Your task to perform on an android device: What's on my calendar today? Image 0: 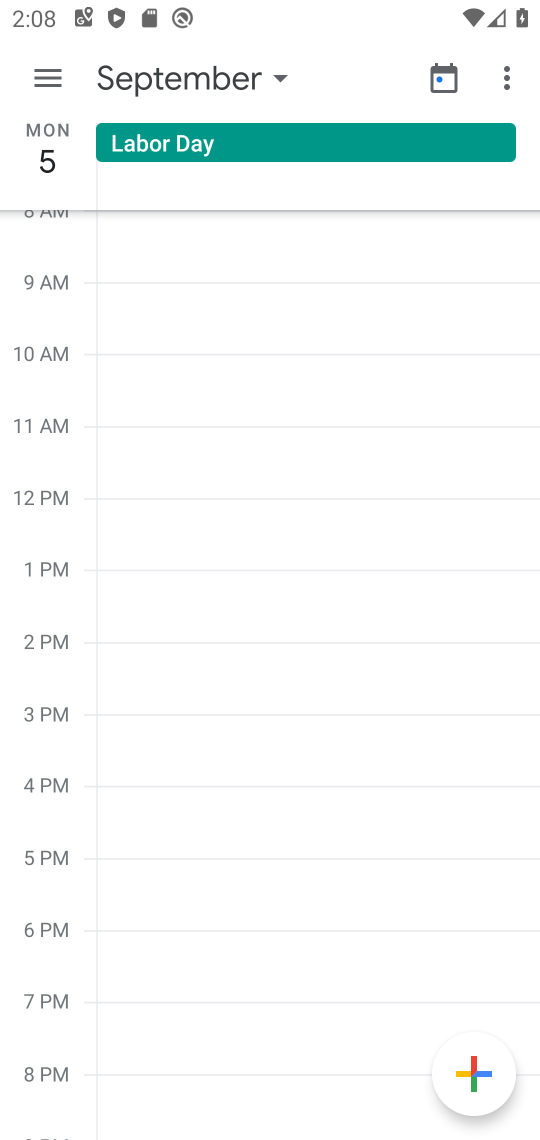
Step 0: press back button
Your task to perform on an android device: What's on my calendar today? Image 1: 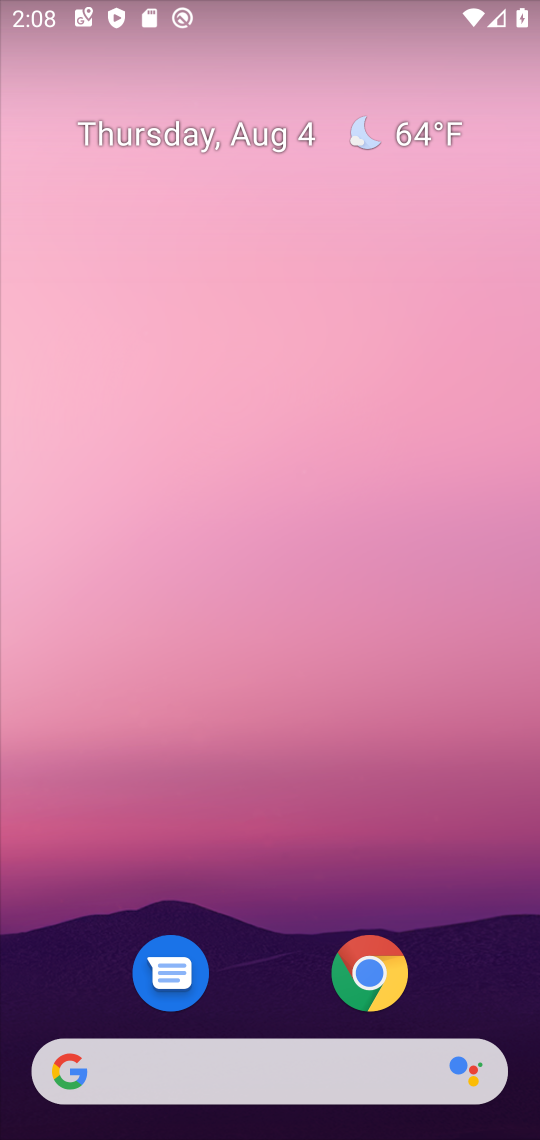
Step 1: drag from (274, 1034) to (182, 55)
Your task to perform on an android device: What's on my calendar today? Image 2: 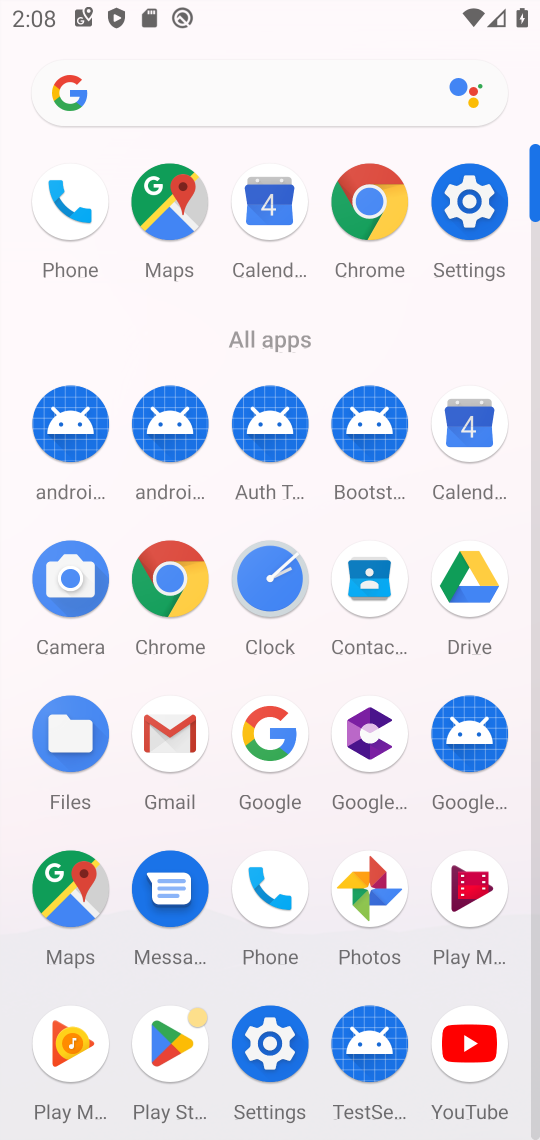
Step 2: click (439, 450)
Your task to perform on an android device: What's on my calendar today? Image 3: 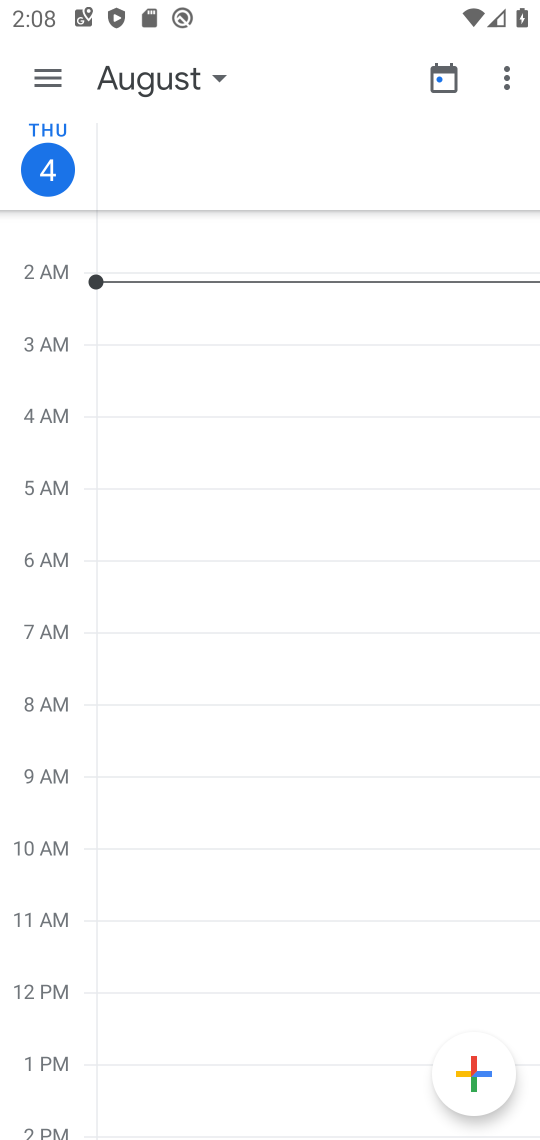
Step 3: click (22, 176)
Your task to perform on an android device: What's on my calendar today? Image 4: 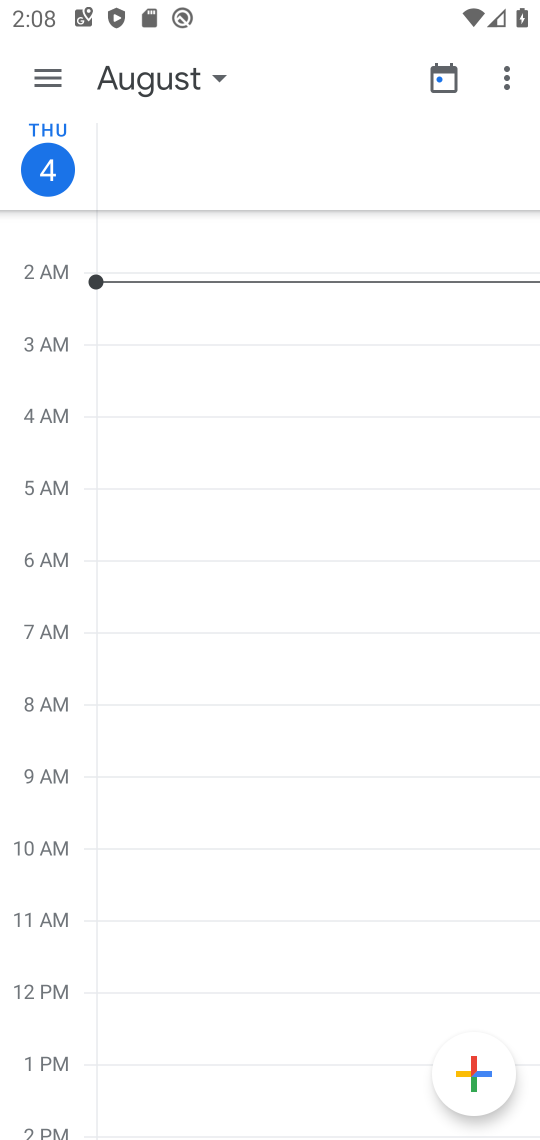
Step 4: click (44, 177)
Your task to perform on an android device: What's on my calendar today? Image 5: 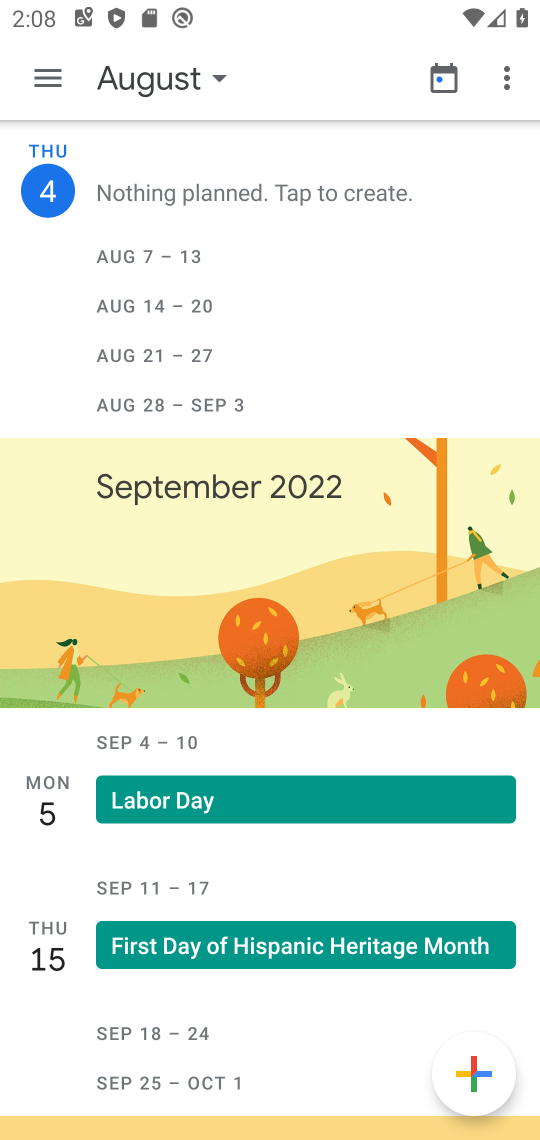
Step 5: task complete